Your task to perform on an android device: turn pop-ups off in chrome Image 0: 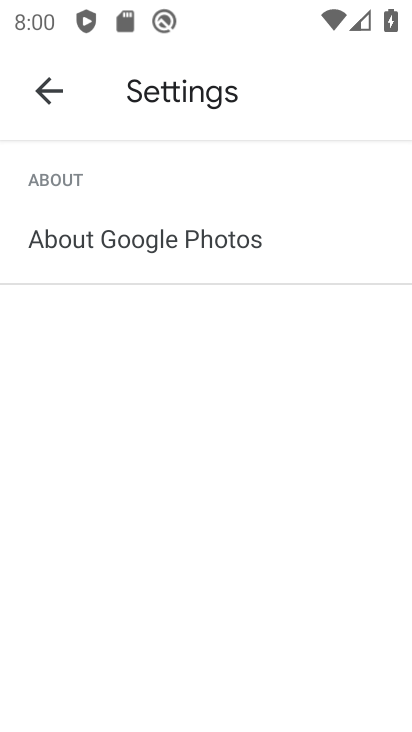
Step 0: press home button
Your task to perform on an android device: turn pop-ups off in chrome Image 1: 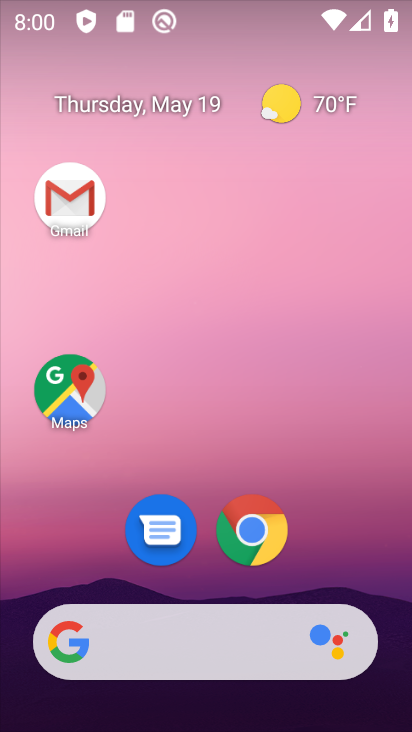
Step 1: click (246, 561)
Your task to perform on an android device: turn pop-ups off in chrome Image 2: 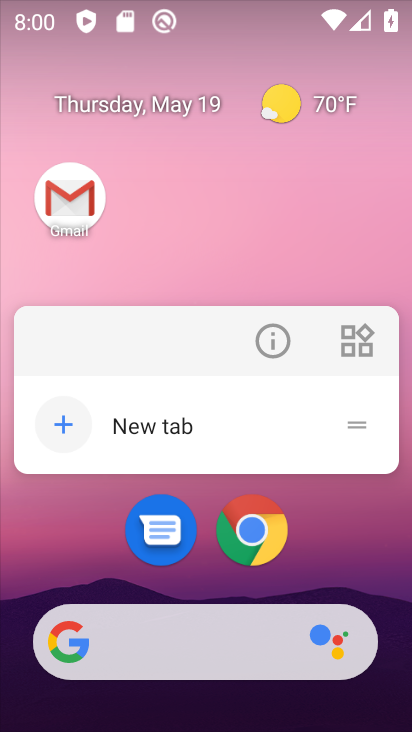
Step 2: click (249, 521)
Your task to perform on an android device: turn pop-ups off in chrome Image 3: 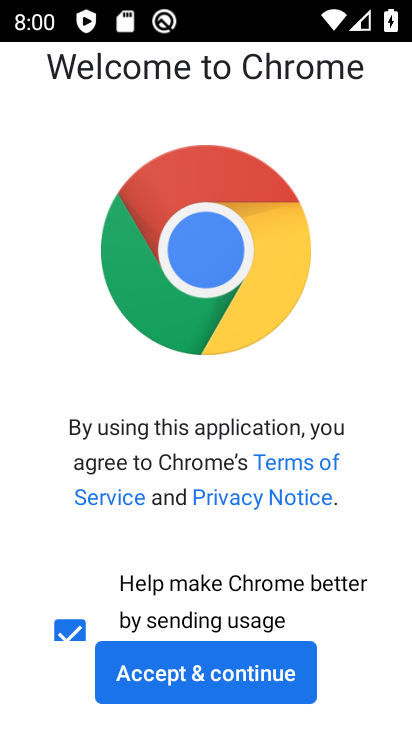
Step 3: click (253, 661)
Your task to perform on an android device: turn pop-ups off in chrome Image 4: 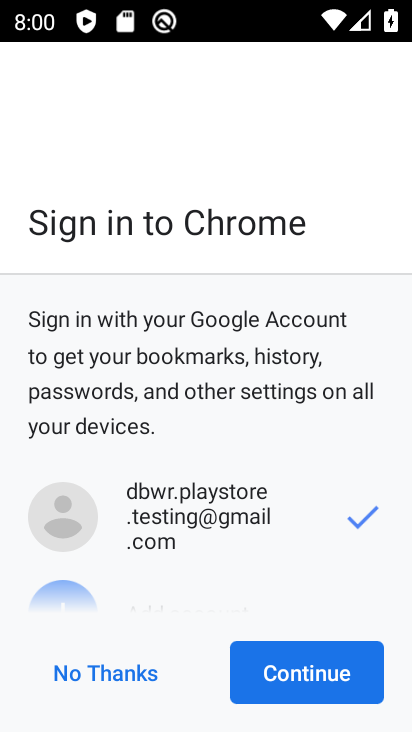
Step 4: click (253, 661)
Your task to perform on an android device: turn pop-ups off in chrome Image 5: 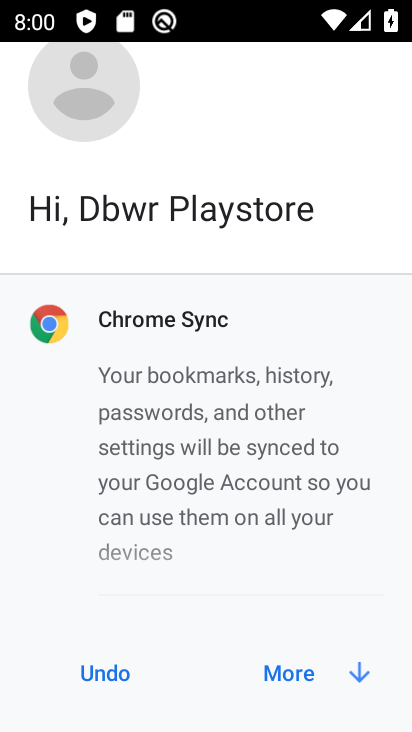
Step 5: click (253, 661)
Your task to perform on an android device: turn pop-ups off in chrome Image 6: 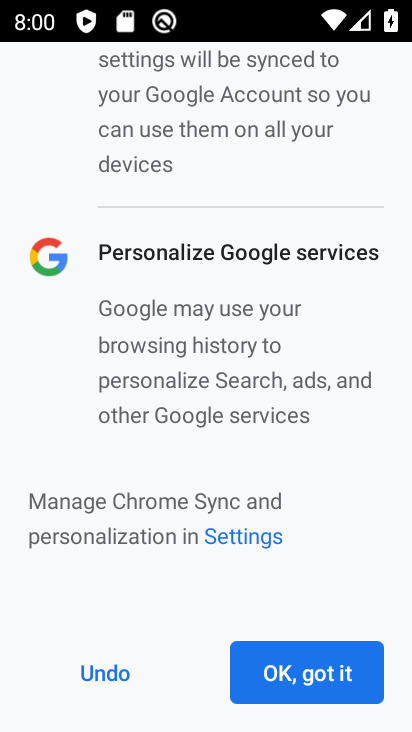
Step 6: click (253, 661)
Your task to perform on an android device: turn pop-ups off in chrome Image 7: 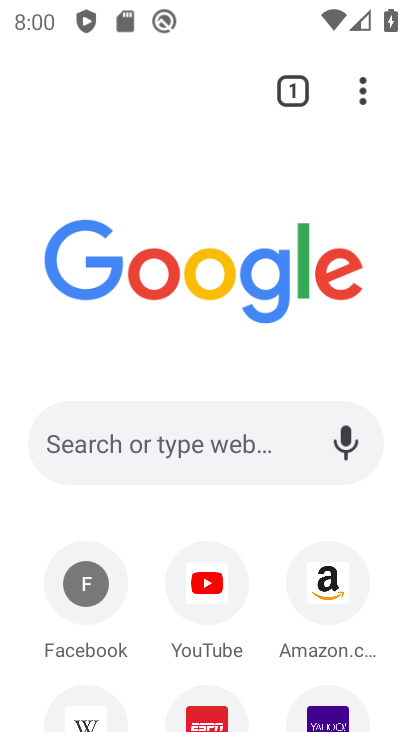
Step 7: click (375, 97)
Your task to perform on an android device: turn pop-ups off in chrome Image 8: 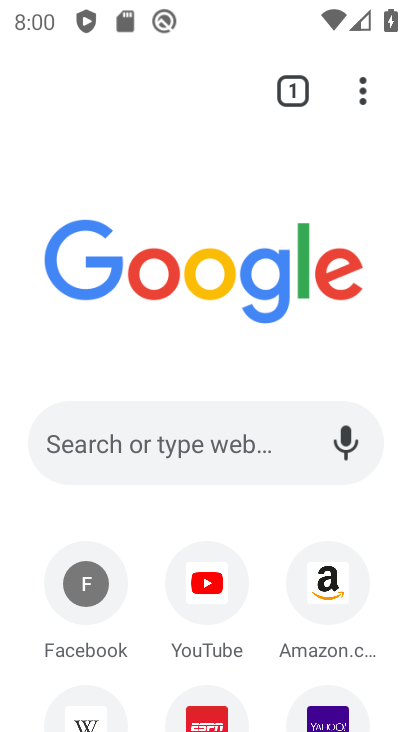
Step 8: click (357, 95)
Your task to perform on an android device: turn pop-ups off in chrome Image 9: 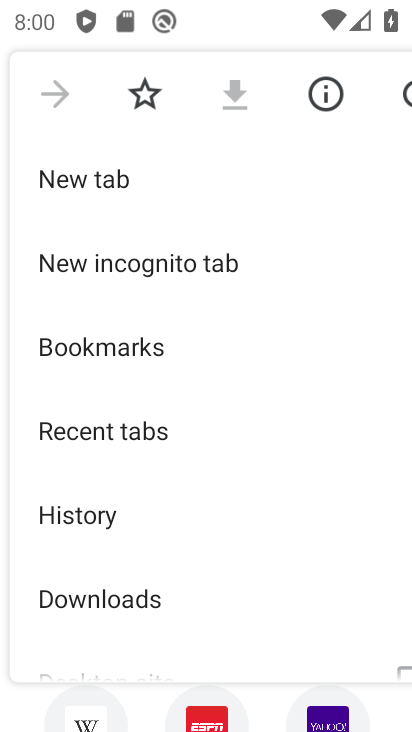
Step 9: drag from (286, 525) to (328, 162)
Your task to perform on an android device: turn pop-ups off in chrome Image 10: 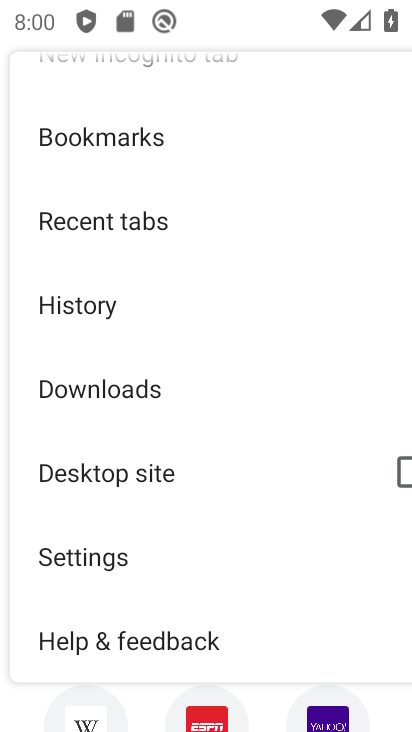
Step 10: click (201, 562)
Your task to perform on an android device: turn pop-ups off in chrome Image 11: 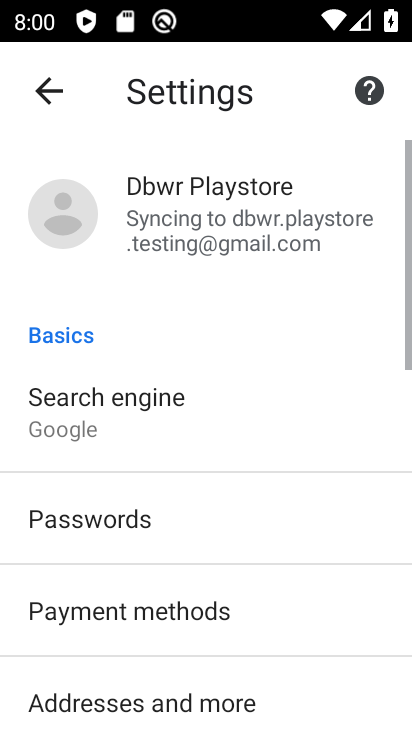
Step 11: drag from (201, 562) to (170, 210)
Your task to perform on an android device: turn pop-ups off in chrome Image 12: 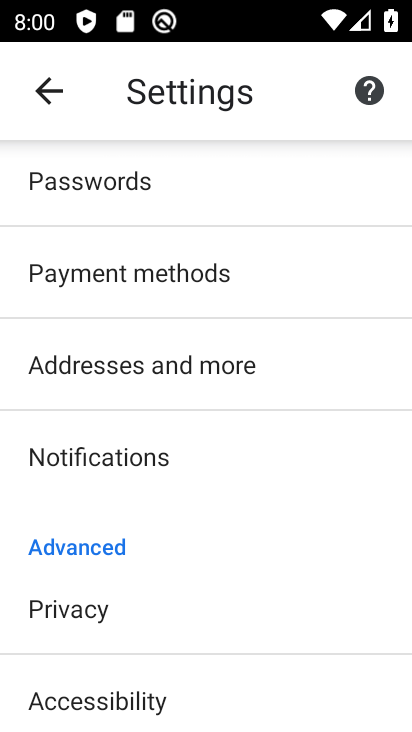
Step 12: drag from (168, 592) to (206, 193)
Your task to perform on an android device: turn pop-ups off in chrome Image 13: 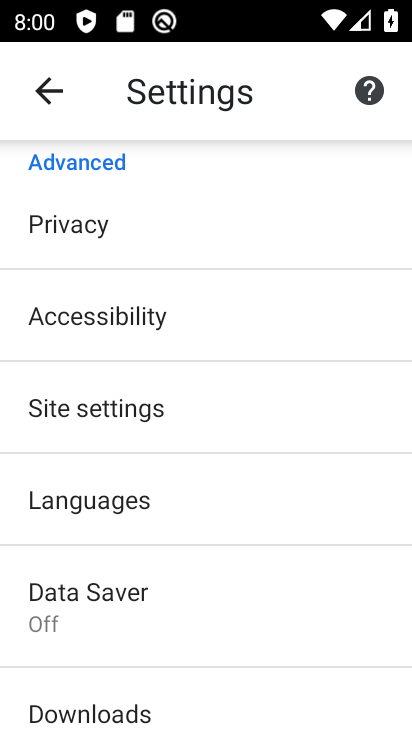
Step 13: click (185, 416)
Your task to perform on an android device: turn pop-ups off in chrome Image 14: 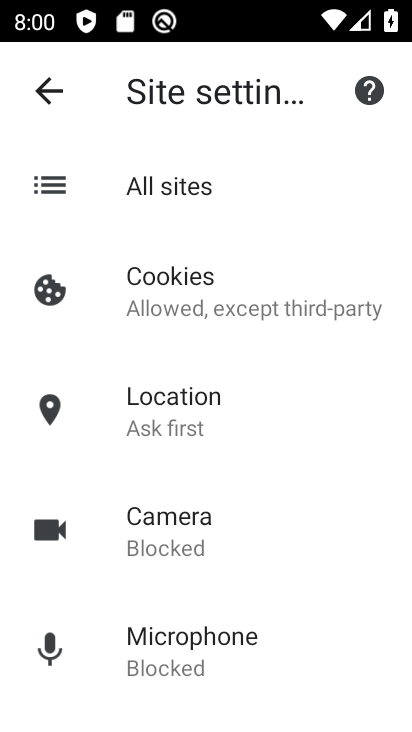
Step 14: drag from (220, 533) to (309, 174)
Your task to perform on an android device: turn pop-ups off in chrome Image 15: 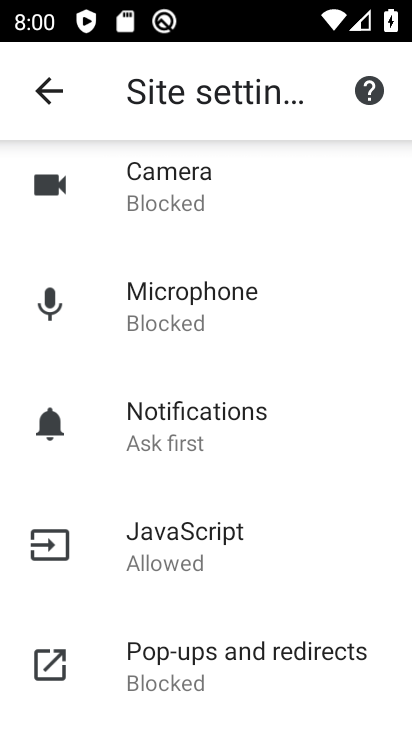
Step 15: click (252, 637)
Your task to perform on an android device: turn pop-ups off in chrome Image 16: 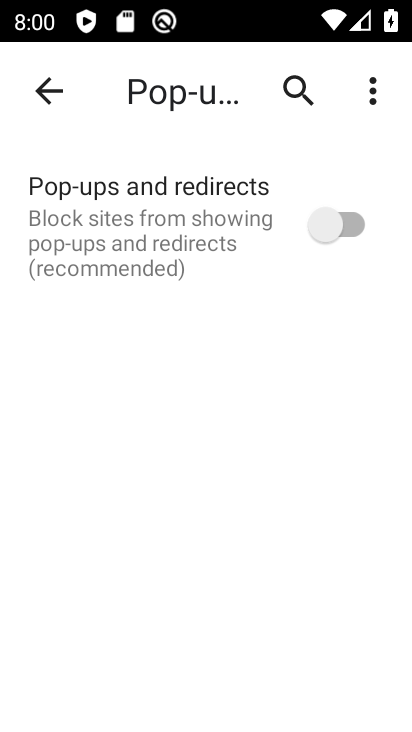
Step 16: task complete